Your task to perform on an android device: Play the last video I watched on Youtube Image 0: 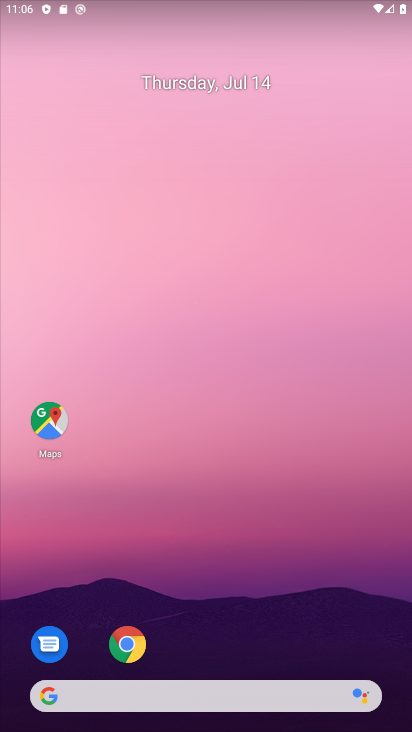
Step 0: drag from (298, 645) to (187, 15)
Your task to perform on an android device: Play the last video I watched on Youtube Image 1: 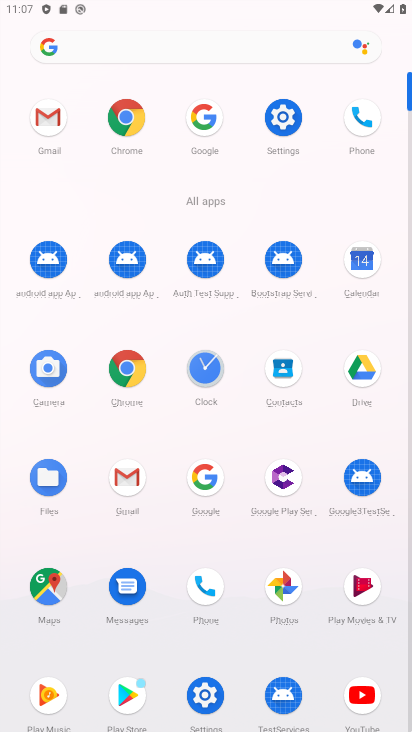
Step 1: click (359, 686)
Your task to perform on an android device: Play the last video I watched on Youtube Image 2: 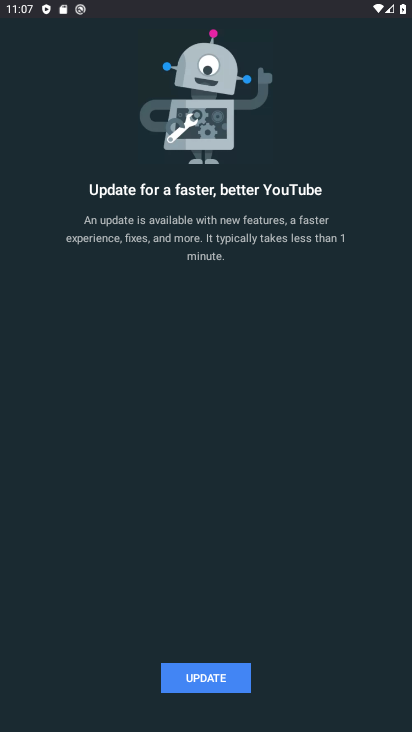
Step 2: click (180, 673)
Your task to perform on an android device: Play the last video I watched on Youtube Image 3: 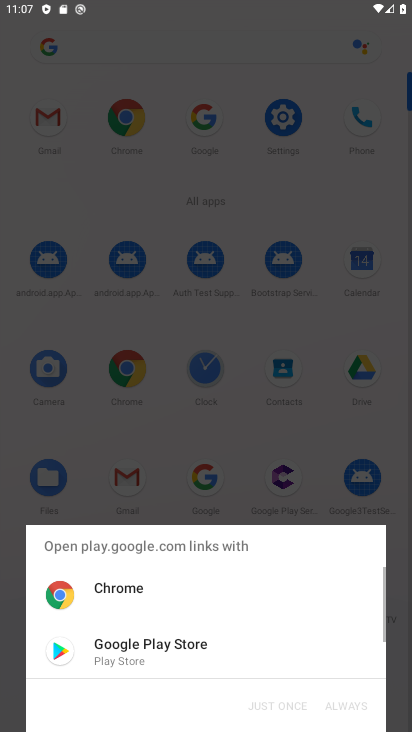
Step 3: click (133, 641)
Your task to perform on an android device: Play the last video I watched on Youtube Image 4: 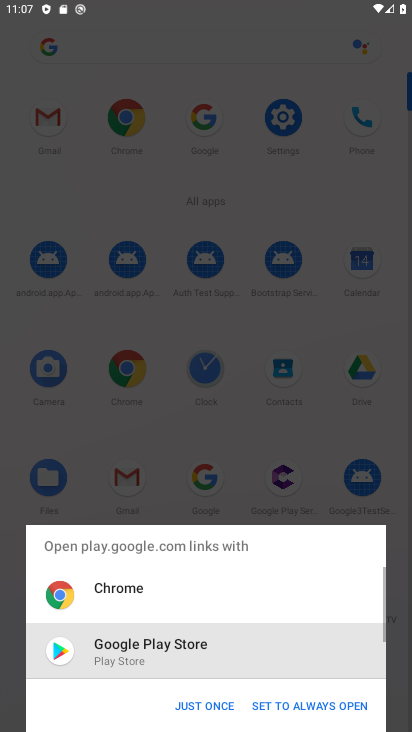
Step 4: click (194, 720)
Your task to perform on an android device: Play the last video I watched on Youtube Image 5: 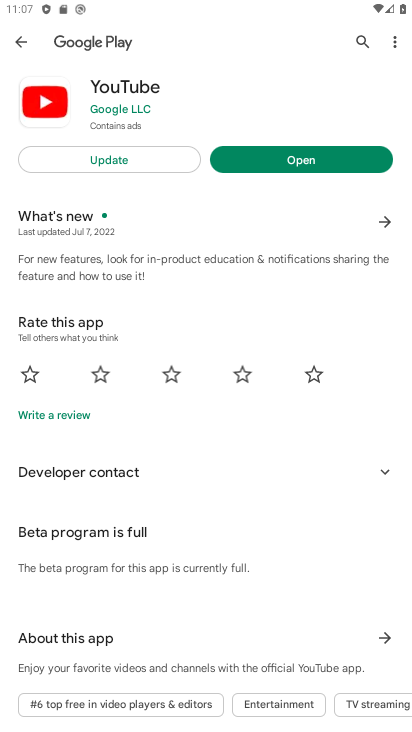
Step 5: click (99, 152)
Your task to perform on an android device: Play the last video I watched on Youtube Image 6: 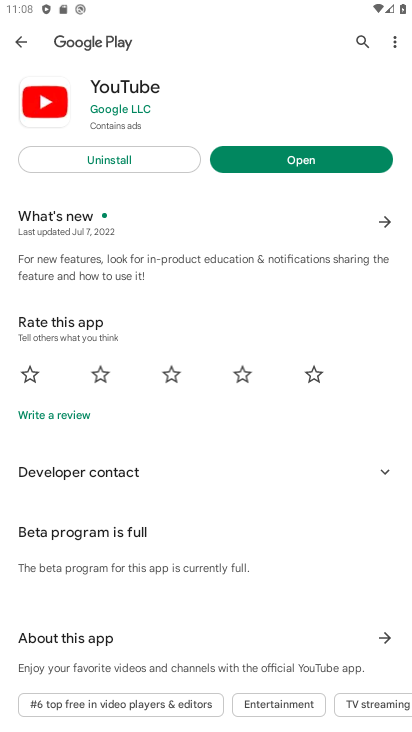
Step 6: task complete